Your task to perform on an android device: Search for a dining table on crateandbarrel.com Image 0: 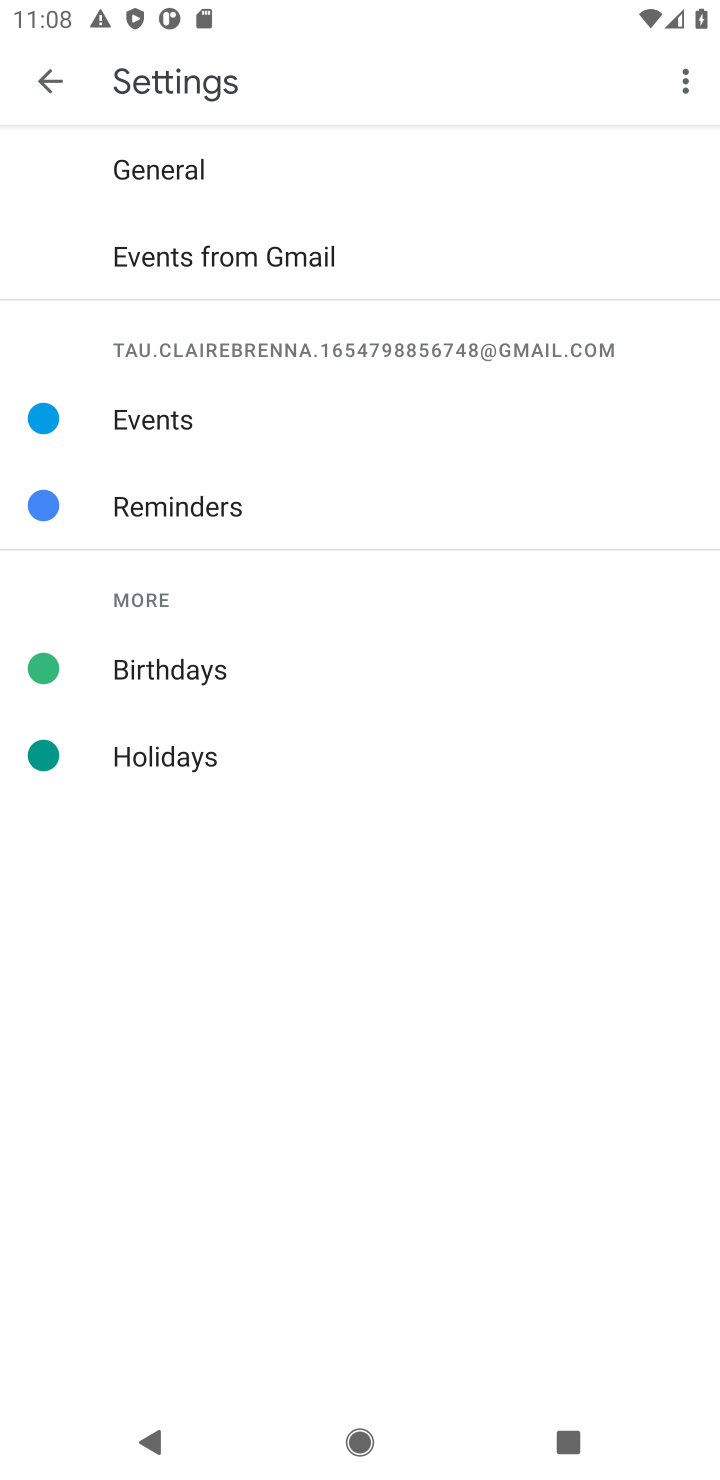
Step 0: press home button
Your task to perform on an android device: Search for a dining table on crateandbarrel.com Image 1: 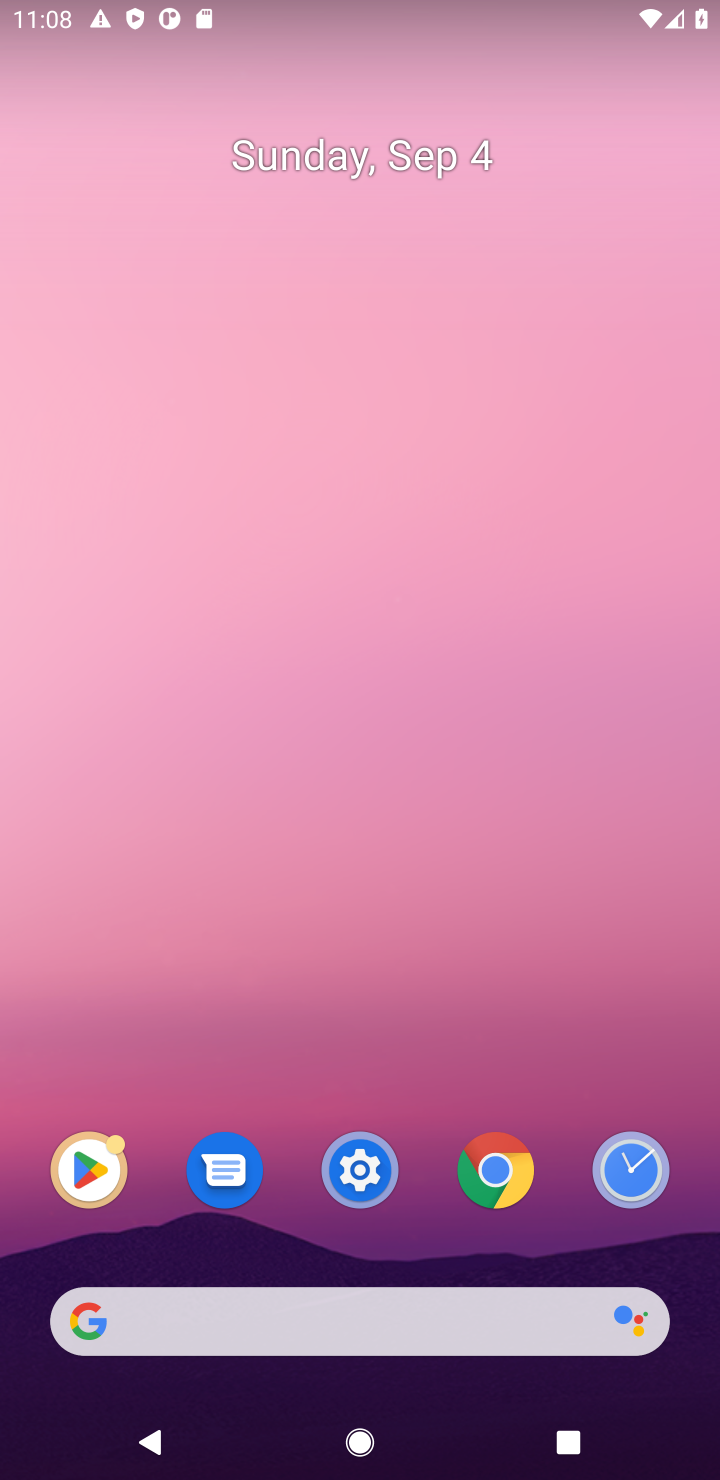
Step 1: click (454, 1300)
Your task to perform on an android device: Search for a dining table on crateandbarrel.com Image 2: 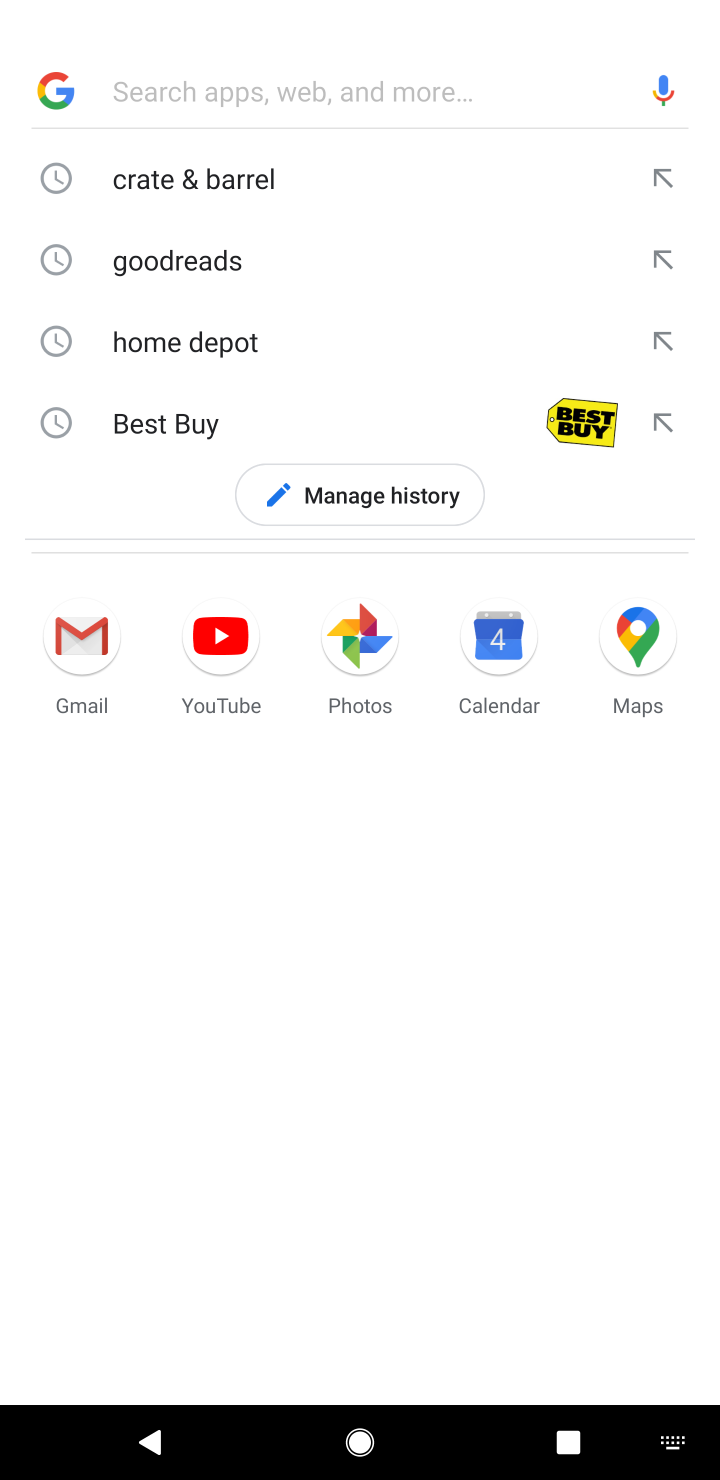
Step 2: type "crateandbarrel.com"
Your task to perform on an android device: Search for a dining table on crateandbarrel.com Image 3: 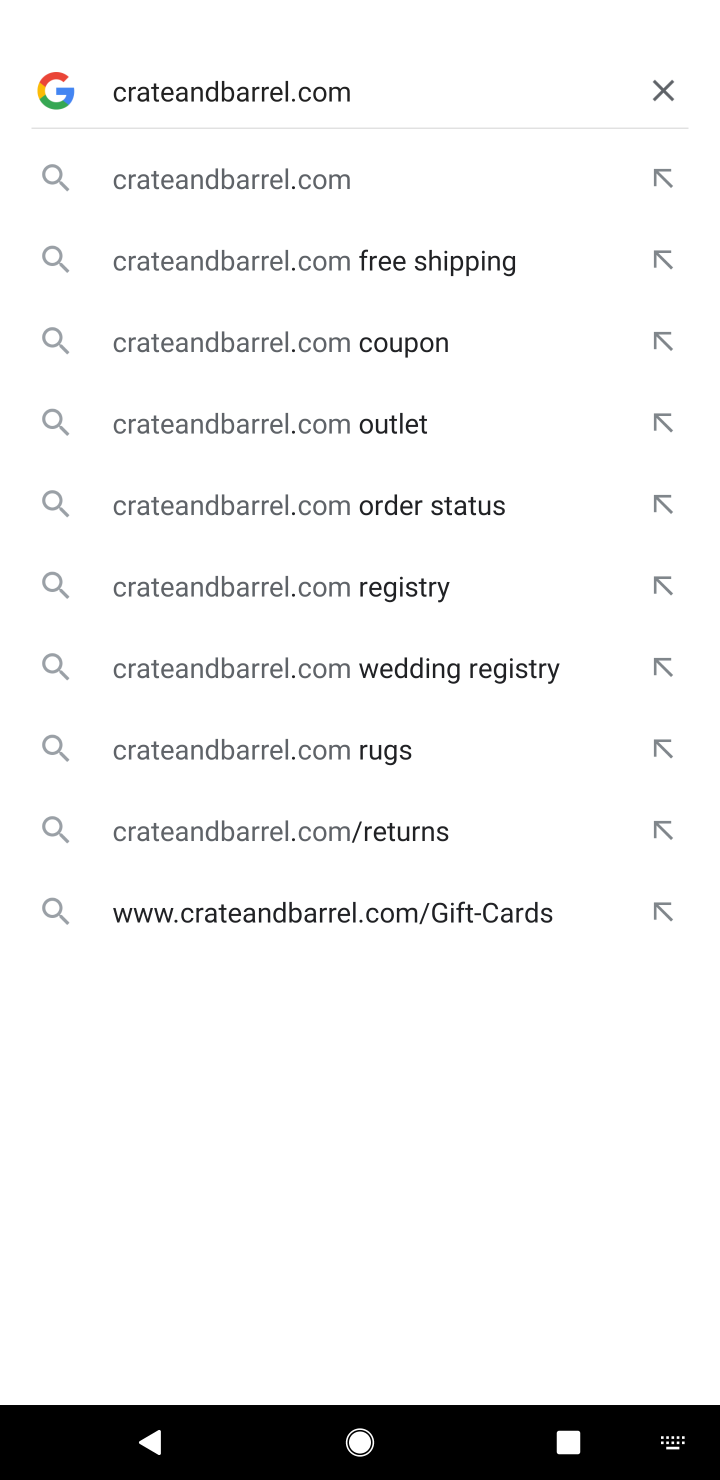
Step 3: click (337, 165)
Your task to perform on an android device: Search for a dining table on crateandbarrel.com Image 4: 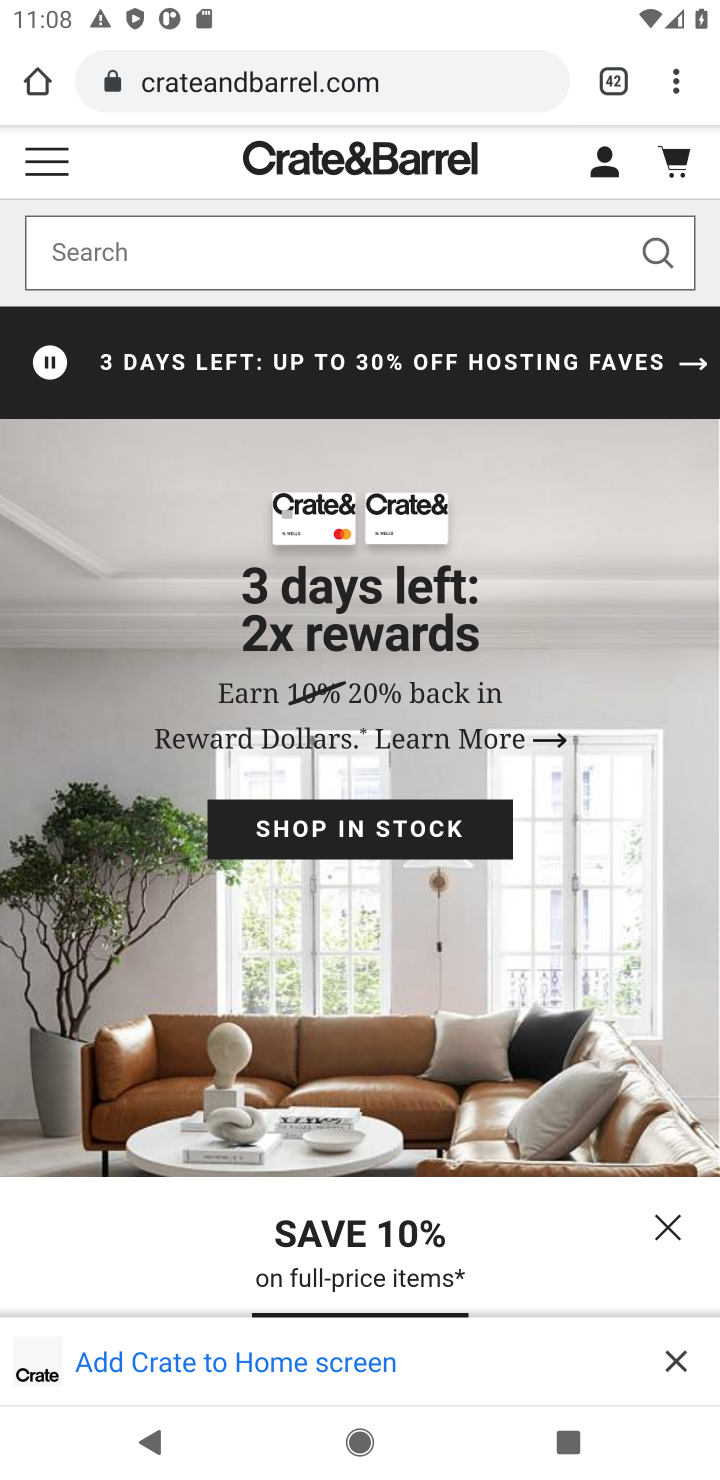
Step 4: click (237, 263)
Your task to perform on an android device: Search for a dining table on crateandbarrel.com Image 5: 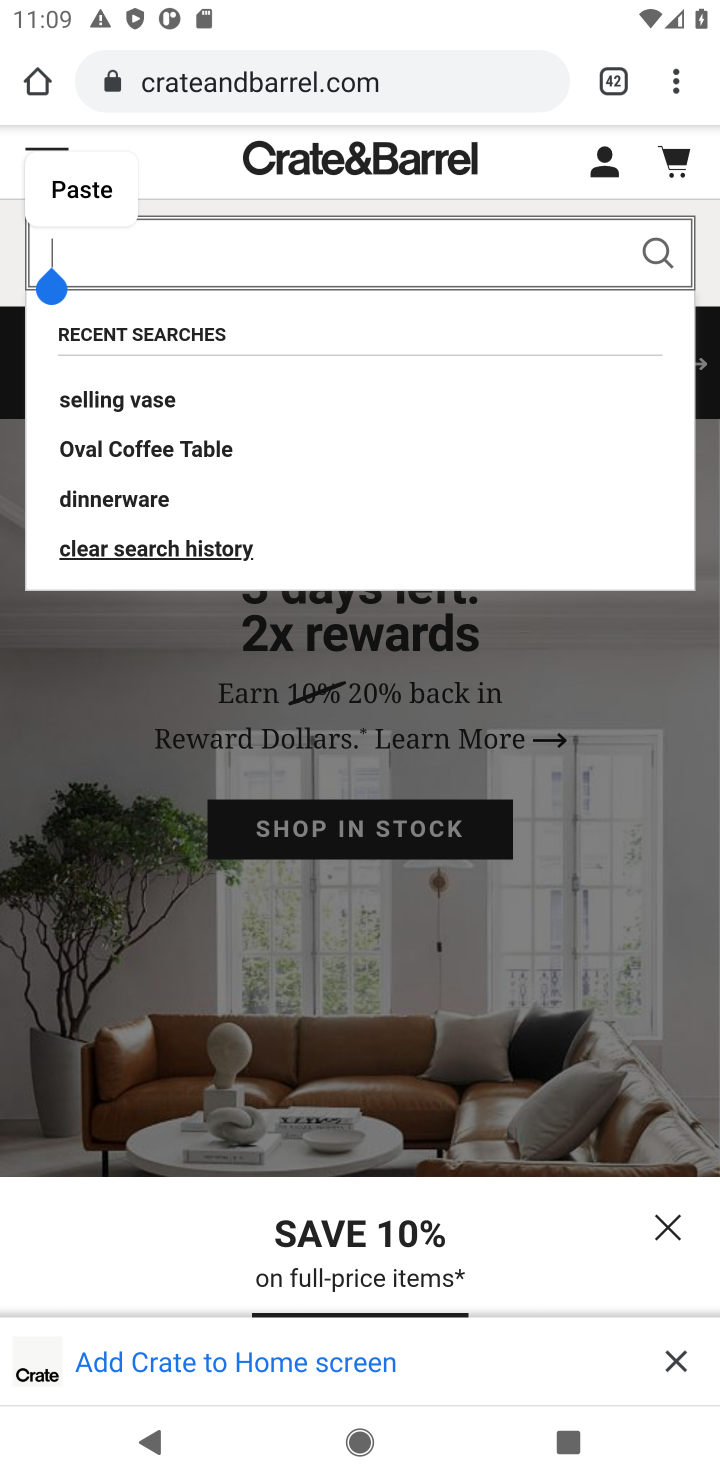
Step 5: type "dining table"
Your task to perform on an android device: Search for a dining table on crateandbarrel.com Image 6: 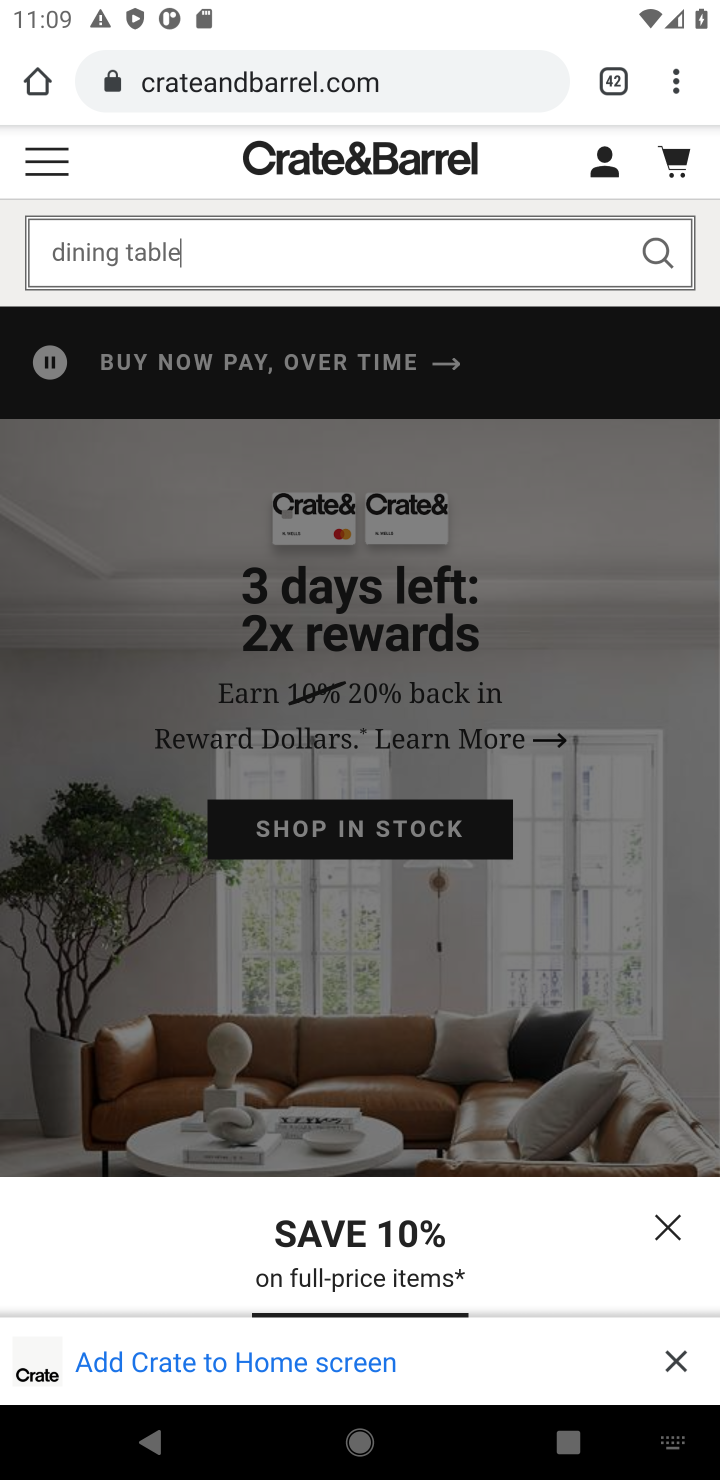
Step 6: type ""
Your task to perform on an android device: Search for a dining table on crateandbarrel.com Image 7: 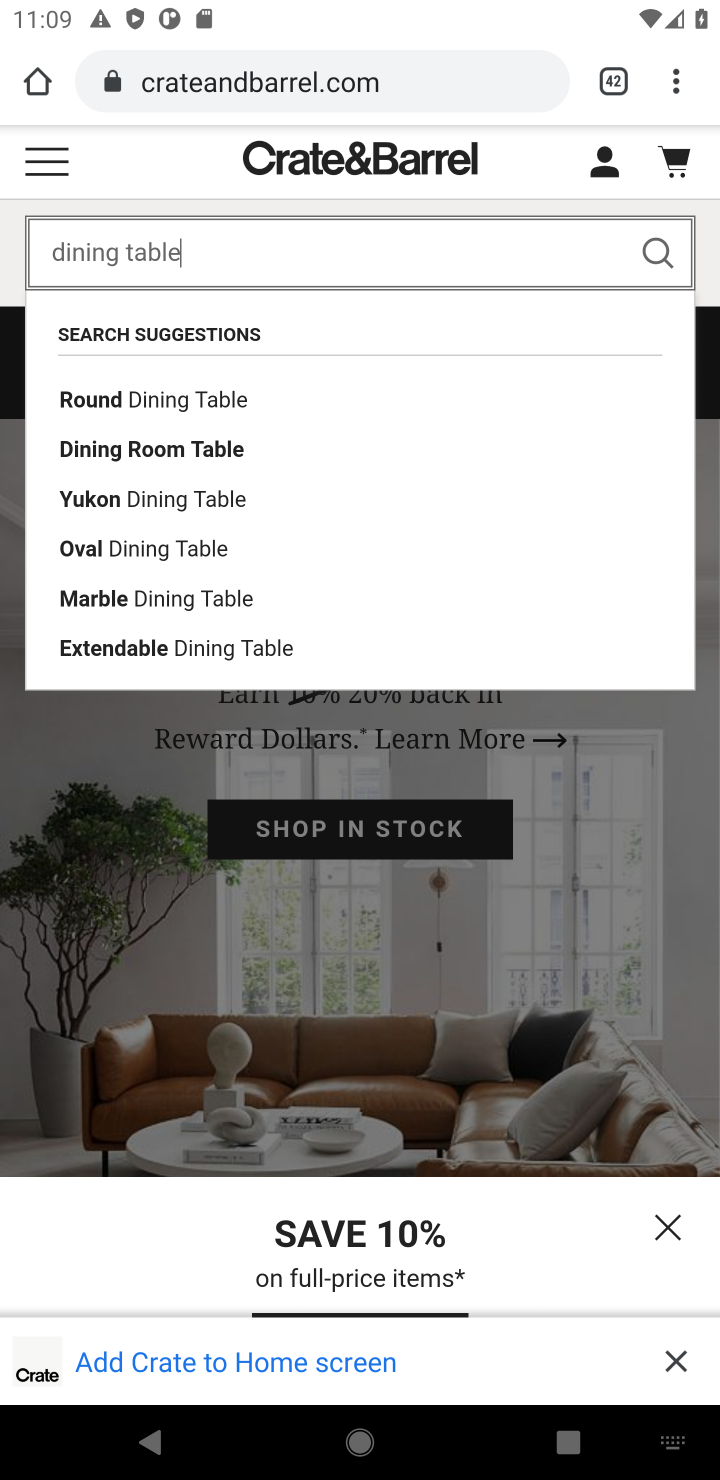
Step 7: click (666, 253)
Your task to perform on an android device: Search for a dining table on crateandbarrel.com Image 8: 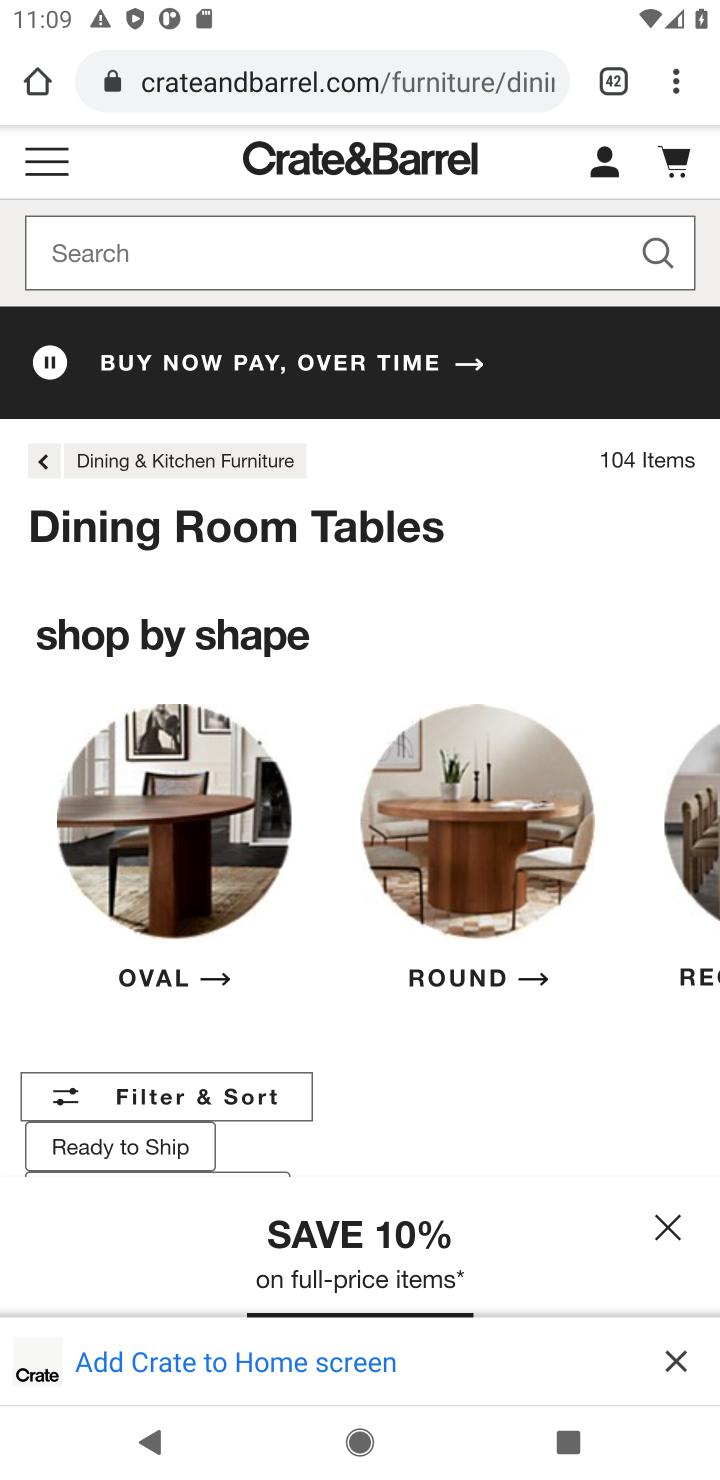
Step 8: task complete